Your task to perform on an android device: Open Yahoo.com Image 0: 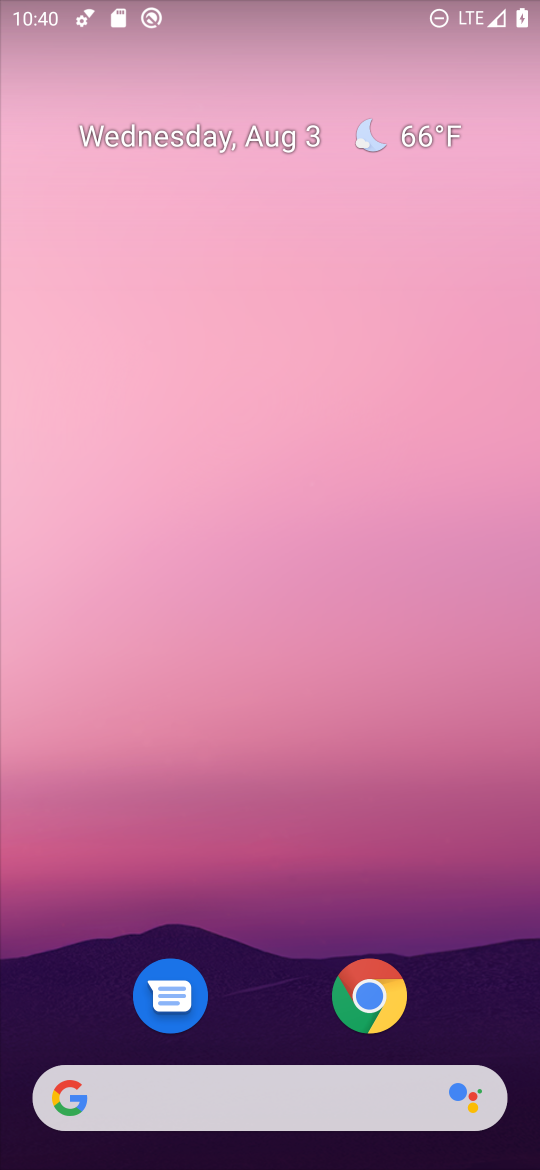
Step 0: click (312, 1096)
Your task to perform on an android device: Open Yahoo.com Image 1: 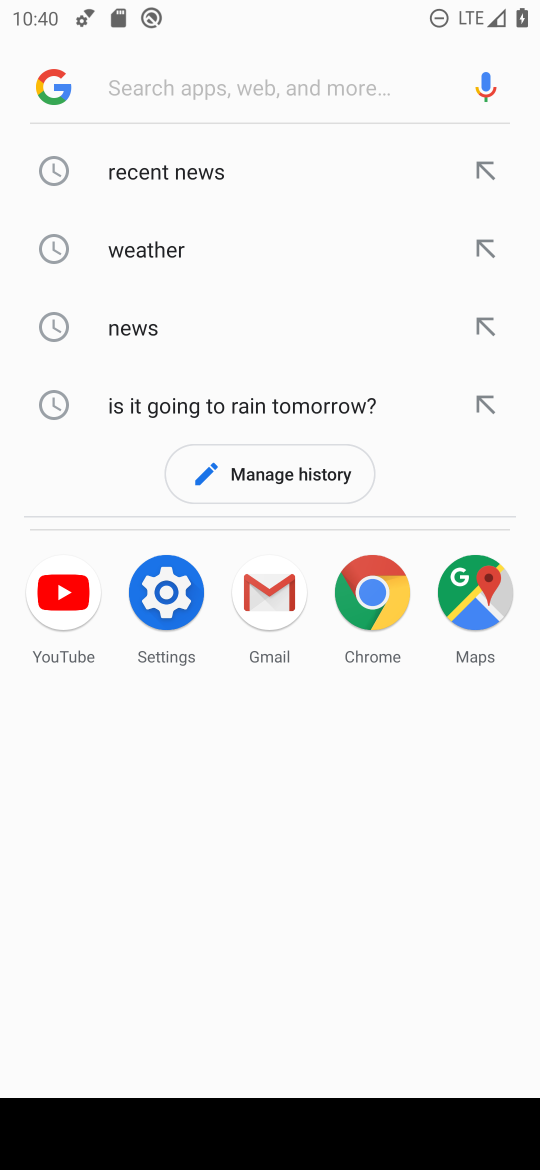
Step 1: type "yahoo.com"
Your task to perform on an android device: Open Yahoo.com Image 2: 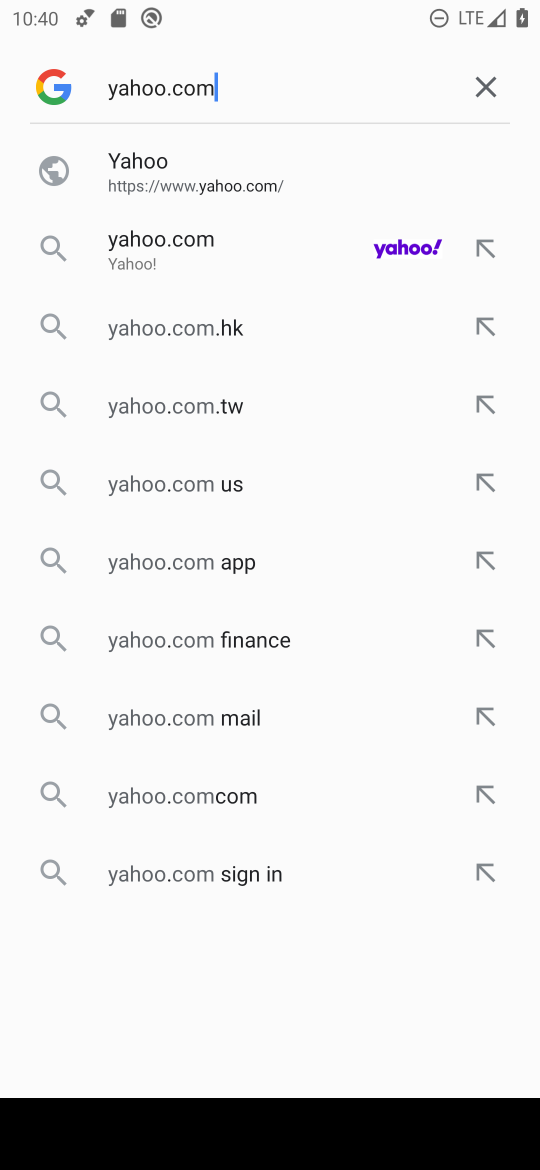
Step 2: click (282, 240)
Your task to perform on an android device: Open Yahoo.com Image 3: 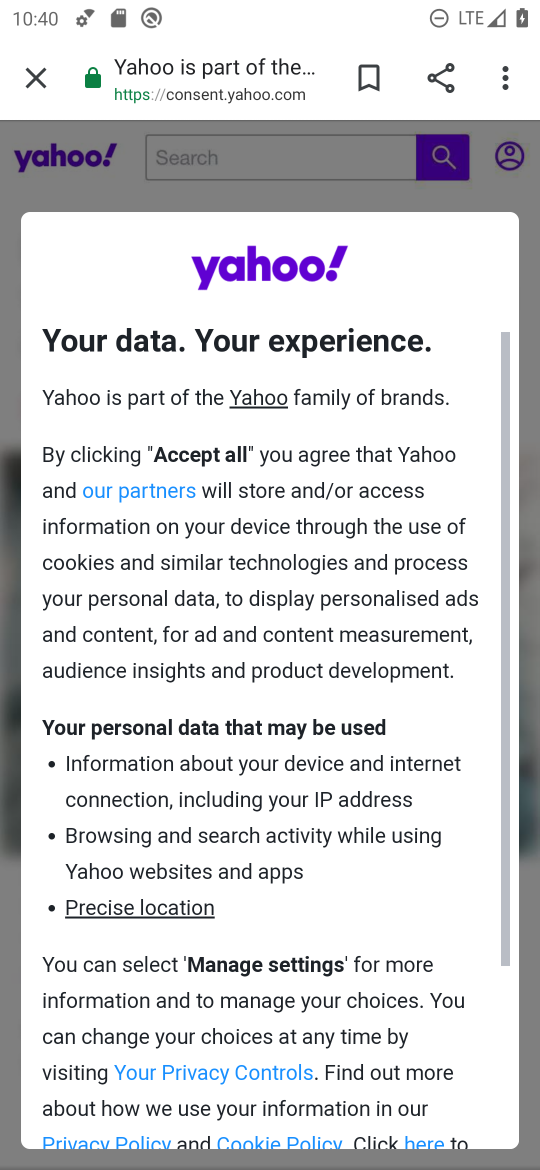
Step 3: drag from (331, 857) to (360, 270)
Your task to perform on an android device: Open Yahoo.com Image 4: 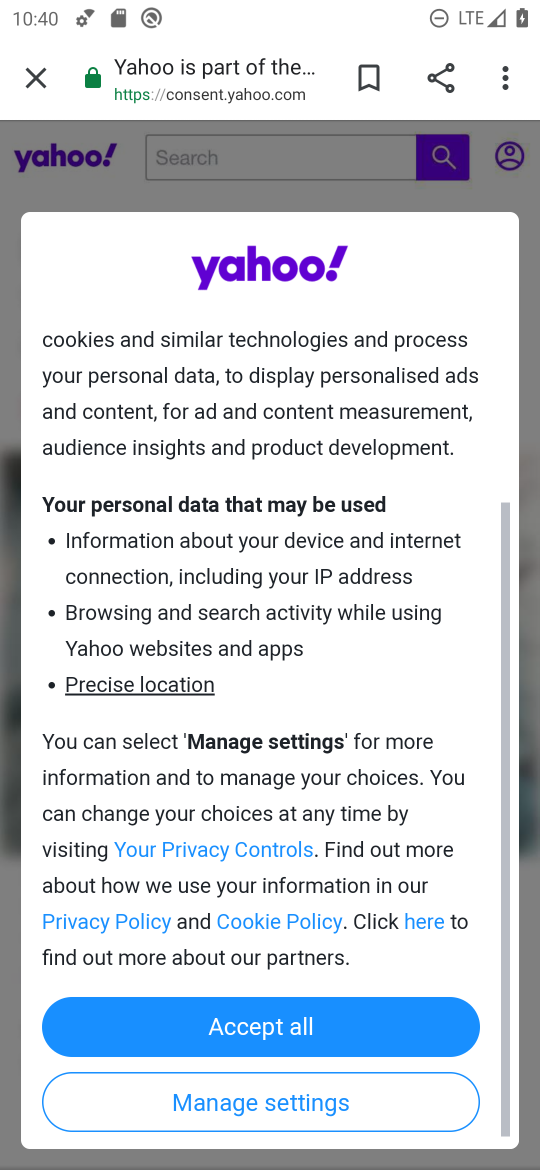
Step 4: click (326, 1025)
Your task to perform on an android device: Open Yahoo.com Image 5: 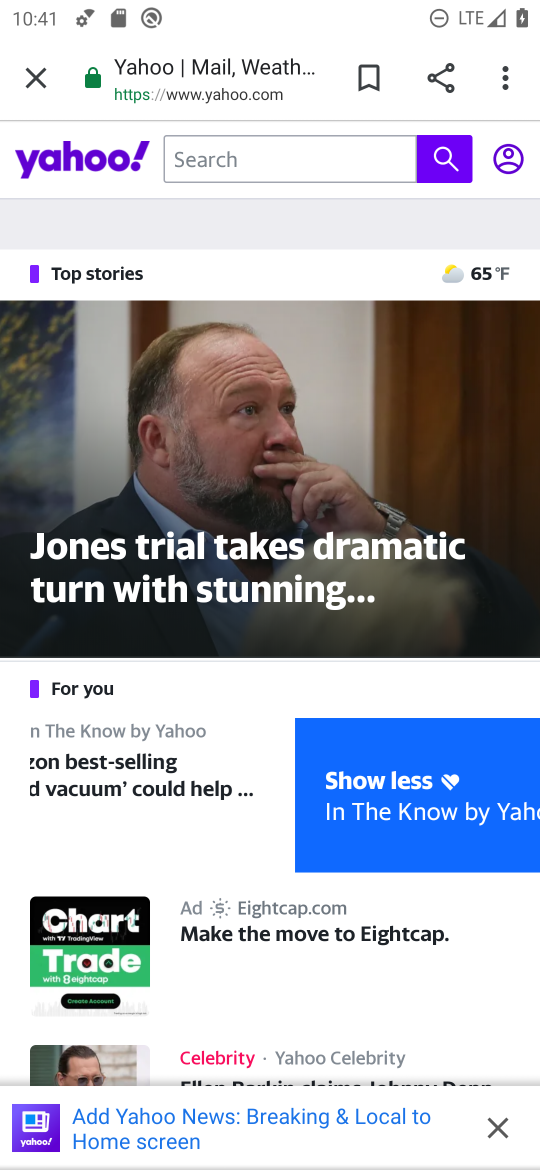
Step 5: task complete